Your task to perform on an android device: turn off priority inbox in the gmail app Image 0: 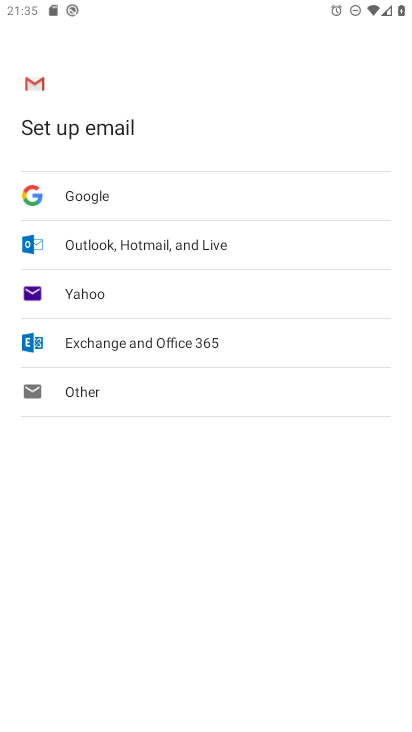
Step 0: press home button
Your task to perform on an android device: turn off priority inbox in the gmail app Image 1: 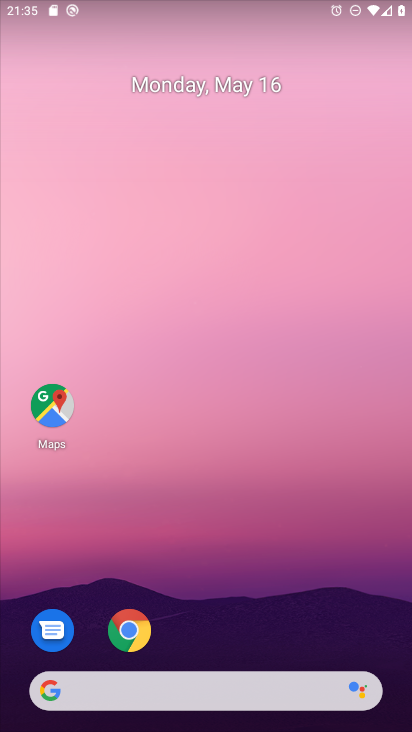
Step 1: drag from (170, 527) to (143, 67)
Your task to perform on an android device: turn off priority inbox in the gmail app Image 2: 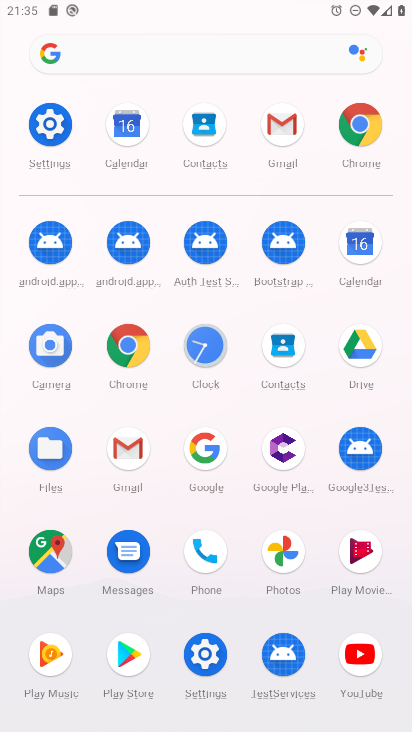
Step 2: click (293, 127)
Your task to perform on an android device: turn off priority inbox in the gmail app Image 3: 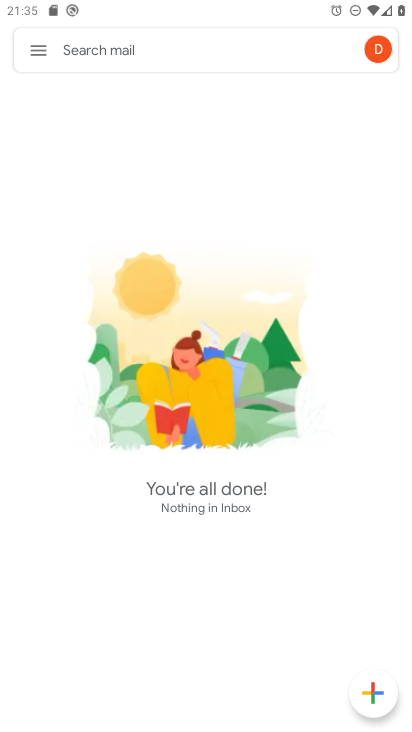
Step 3: click (47, 50)
Your task to perform on an android device: turn off priority inbox in the gmail app Image 4: 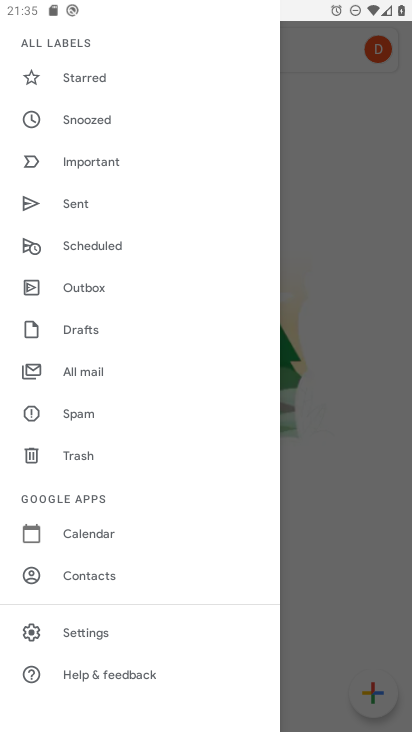
Step 4: click (107, 635)
Your task to perform on an android device: turn off priority inbox in the gmail app Image 5: 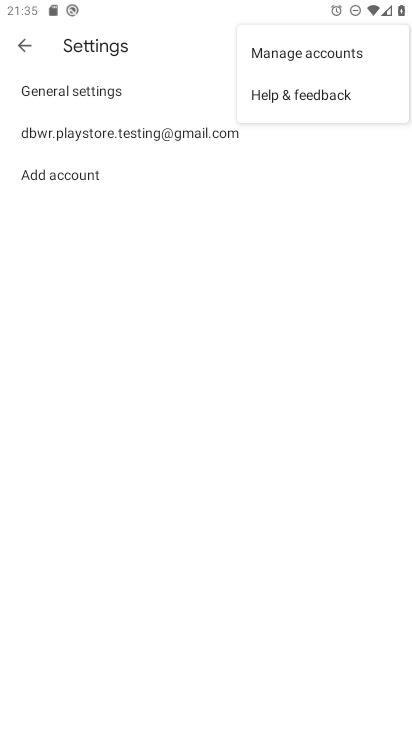
Step 5: task complete